Your task to perform on an android device: toggle sleep mode Image 0: 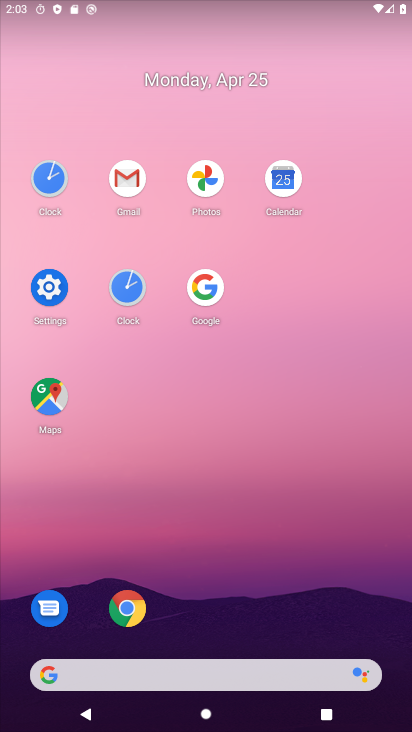
Step 0: click (56, 288)
Your task to perform on an android device: toggle sleep mode Image 1: 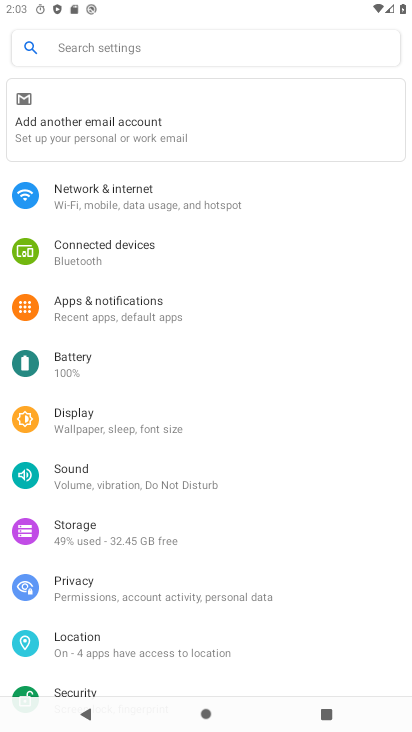
Step 1: click (143, 433)
Your task to perform on an android device: toggle sleep mode Image 2: 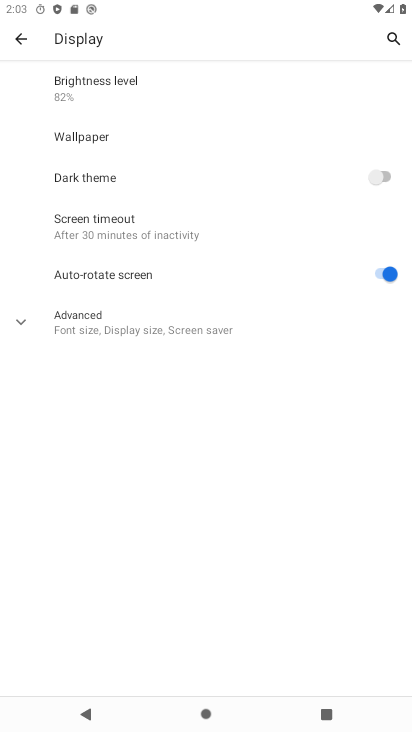
Step 2: click (134, 229)
Your task to perform on an android device: toggle sleep mode Image 3: 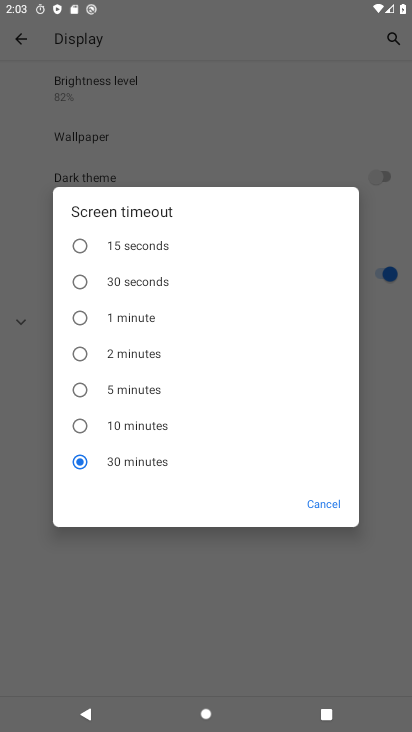
Step 3: click (114, 238)
Your task to perform on an android device: toggle sleep mode Image 4: 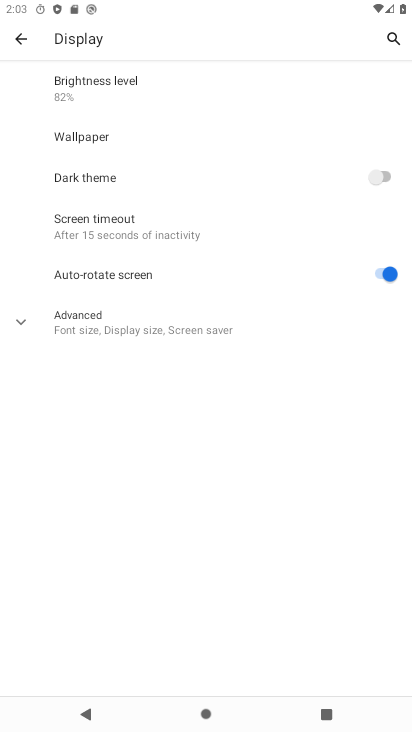
Step 4: task complete